Your task to perform on an android device: toggle airplane mode Image 0: 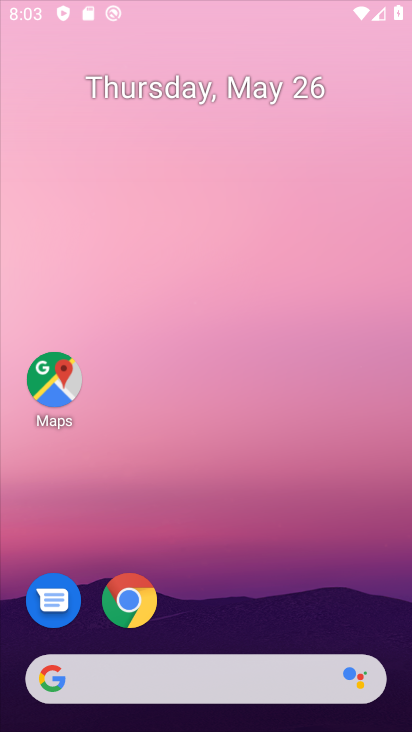
Step 0: click (72, 402)
Your task to perform on an android device: toggle airplane mode Image 1: 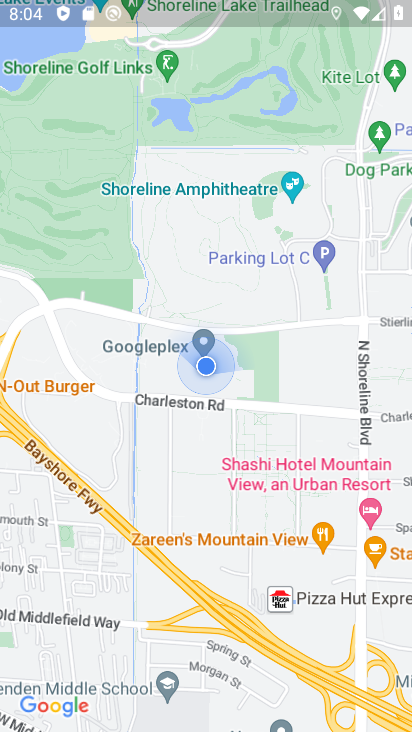
Step 1: drag from (297, 17) to (186, 724)
Your task to perform on an android device: toggle airplane mode Image 2: 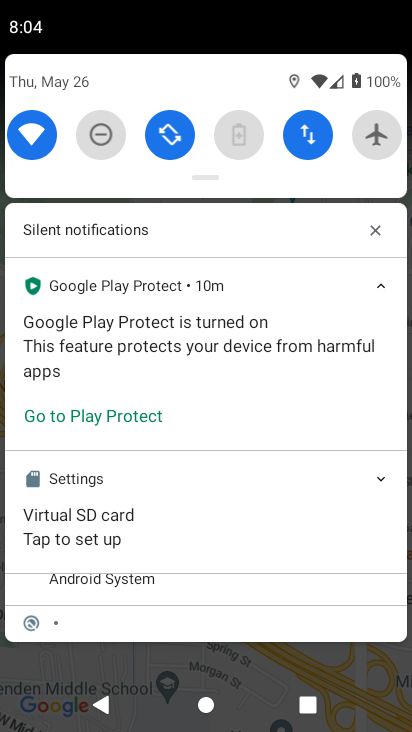
Step 2: click (393, 144)
Your task to perform on an android device: toggle airplane mode Image 3: 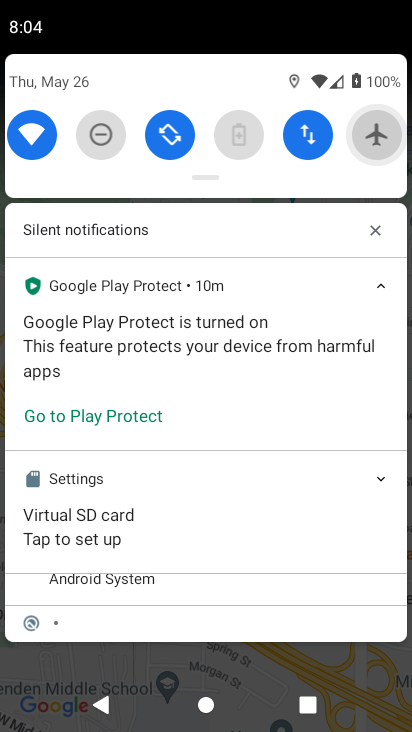
Step 3: click (393, 144)
Your task to perform on an android device: toggle airplane mode Image 4: 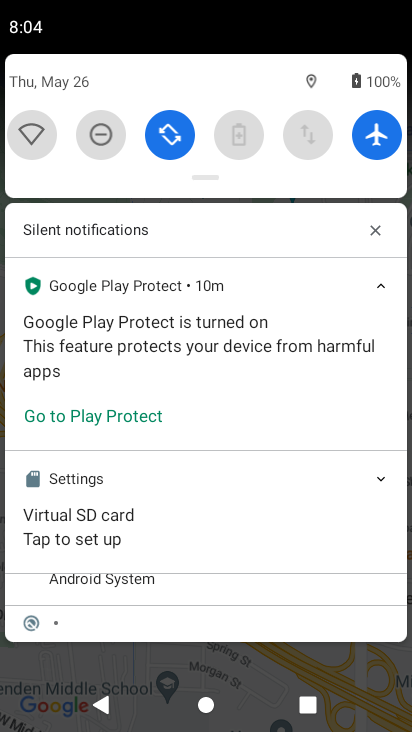
Step 4: click (393, 144)
Your task to perform on an android device: toggle airplane mode Image 5: 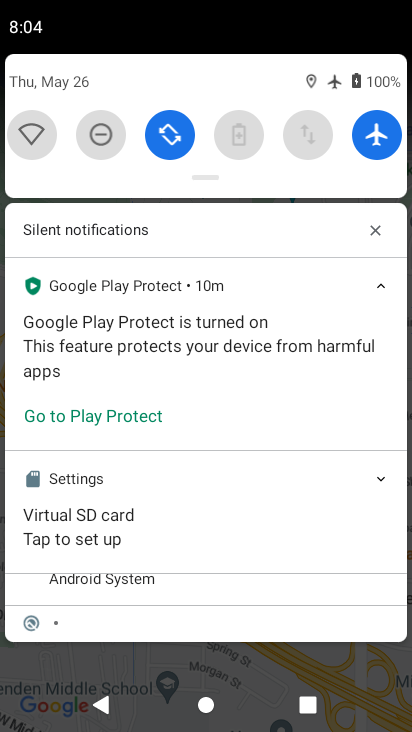
Step 5: click (393, 144)
Your task to perform on an android device: toggle airplane mode Image 6: 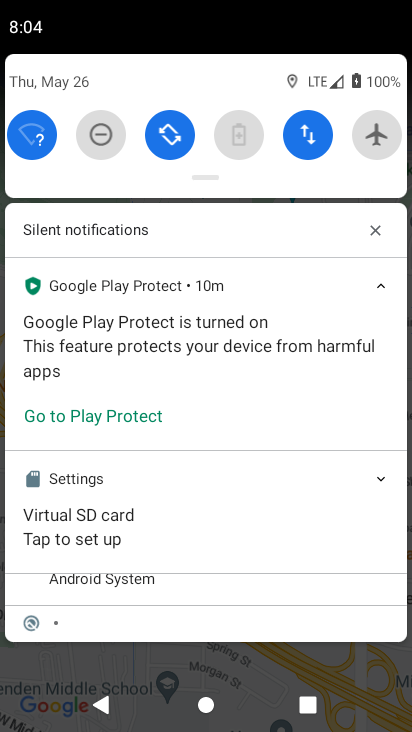
Step 6: task complete